Your task to perform on an android device: toggle sleep mode Image 0: 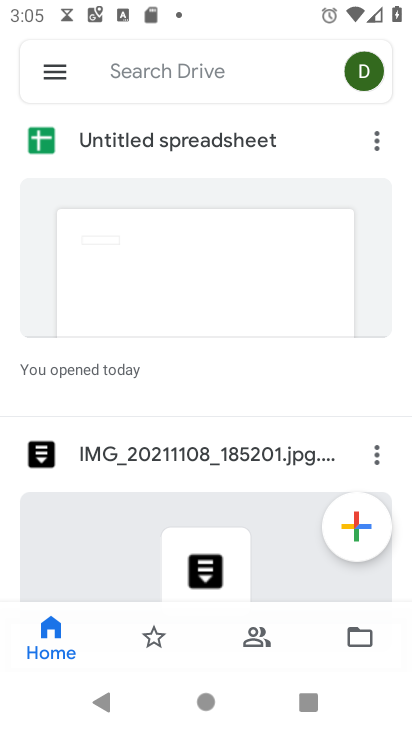
Step 0: press home button
Your task to perform on an android device: toggle sleep mode Image 1: 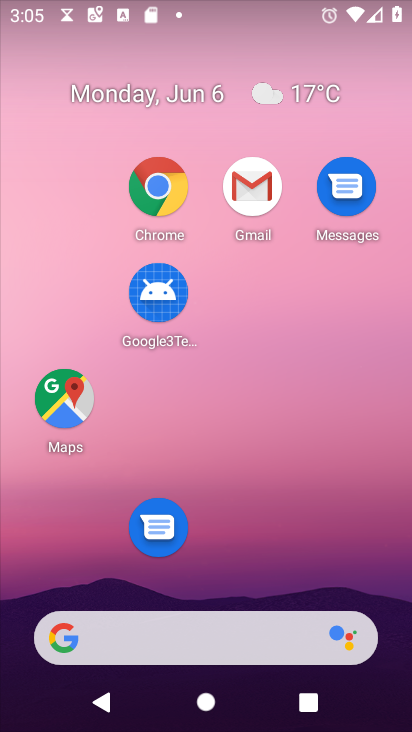
Step 1: drag from (312, 572) to (336, 142)
Your task to perform on an android device: toggle sleep mode Image 2: 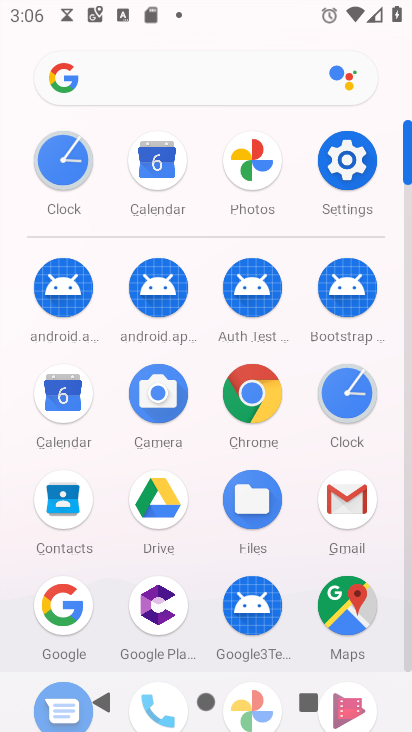
Step 2: click (348, 168)
Your task to perform on an android device: toggle sleep mode Image 3: 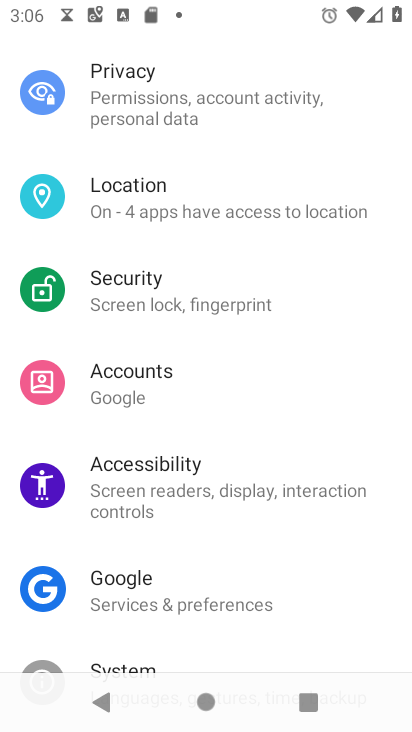
Step 3: drag from (269, 141) to (304, 531)
Your task to perform on an android device: toggle sleep mode Image 4: 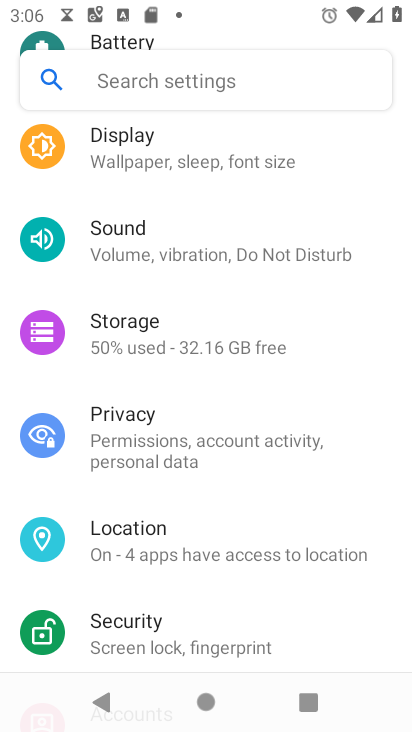
Step 4: click (210, 155)
Your task to perform on an android device: toggle sleep mode Image 5: 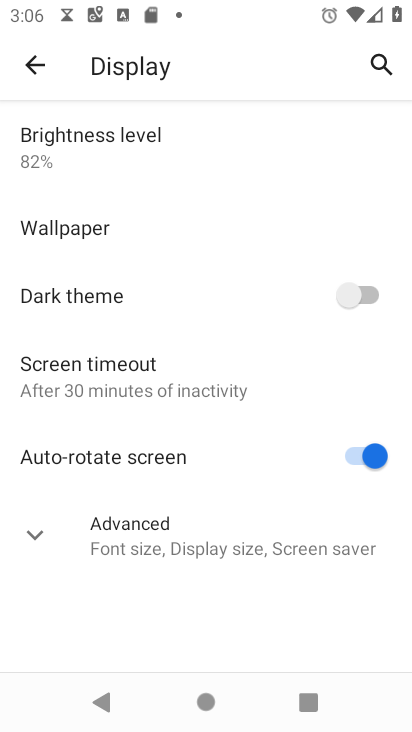
Step 5: click (229, 553)
Your task to perform on an android device: toggle sleep mode Image 6: 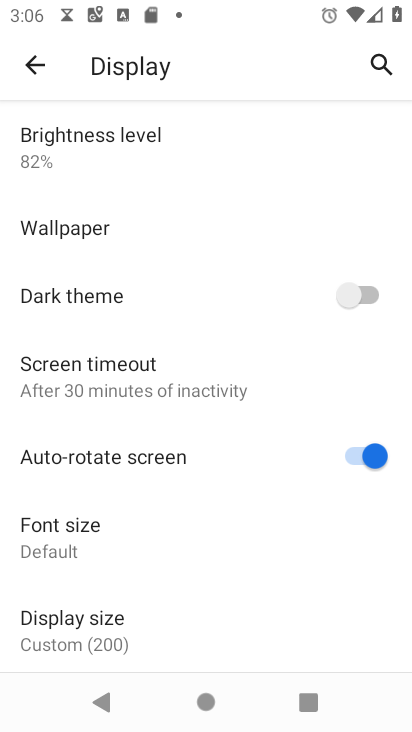
Step 6: task complete